Your task to perform on an android device: Search for seafood restaurants on Google Maps Image 0: 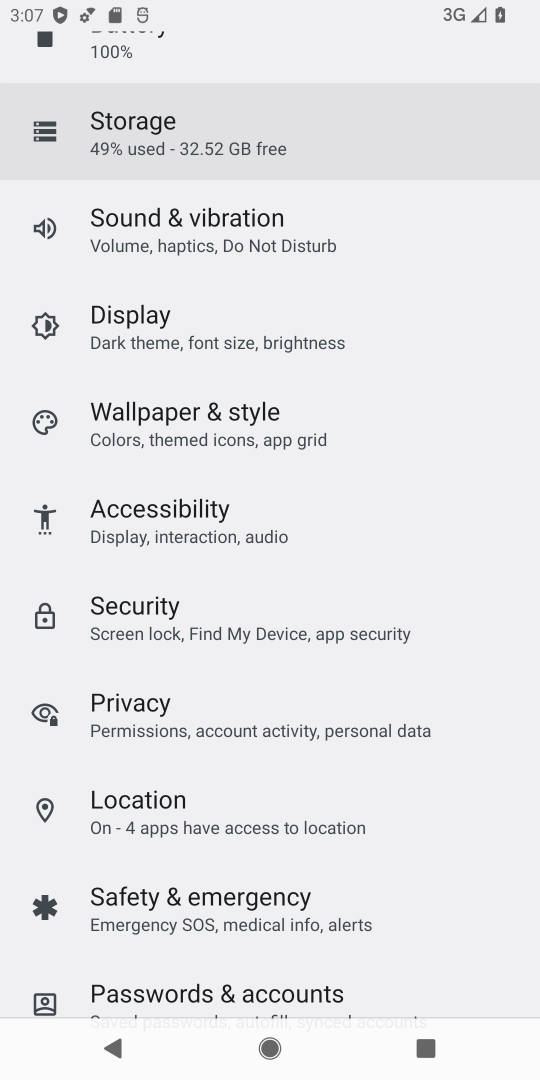
Step 0: press home button
Your task to perform on an android device: Search for seafood restaurants on Google Maps Image 1: 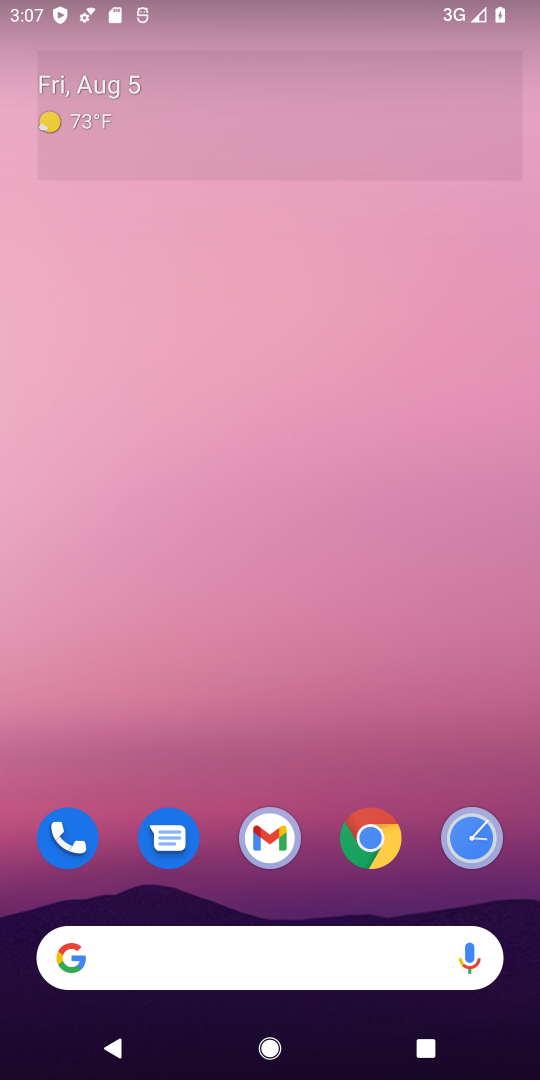
Step 1: drag from (237, 924) to (231, 82)
Your task to perform on an android device: Search for seafood restaurants on Google Maps Image 2: 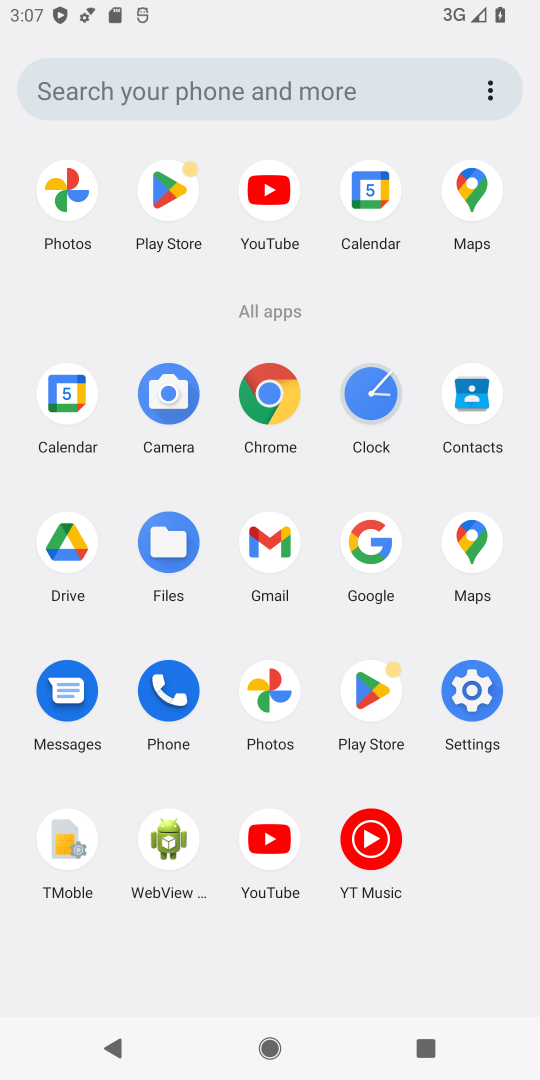
Step 2: click (459, 542)
Your task to perform on an android device: Search for seafood restaurants on Google Maps Image 3: 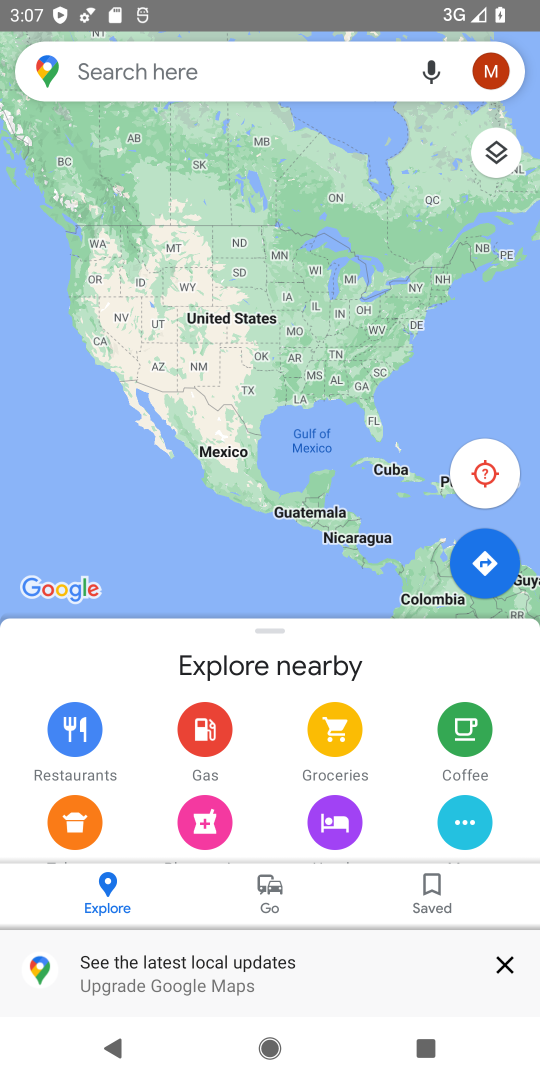
Step 3: click (200, 70)
Your task to perform on an android device: Search for seafood restaurants on Google Maps Image 4: 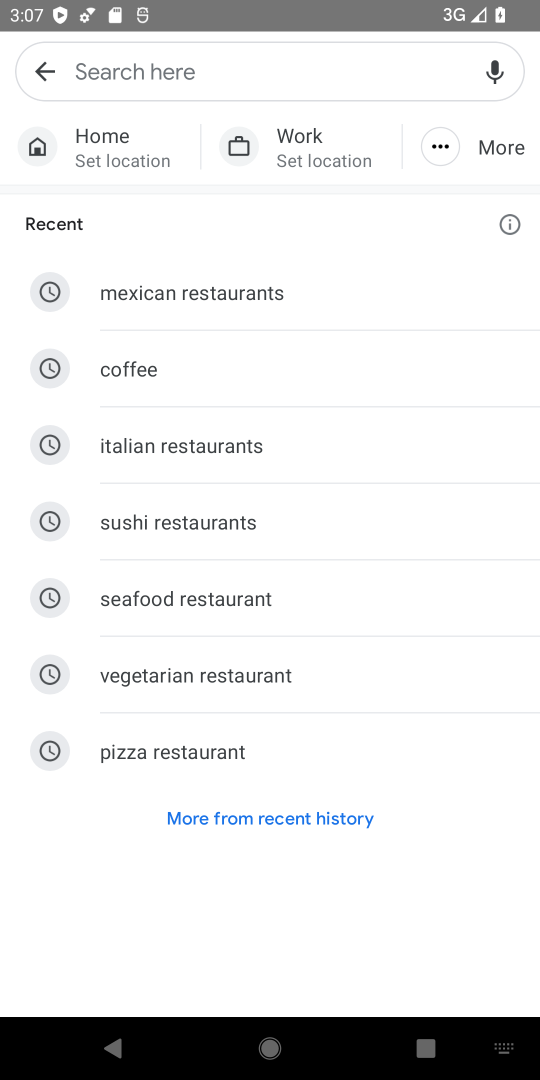
Step 4: click (220, 600)
Your task to perform on an android device: Search for seafood restaurants on Google Maps Image 5: 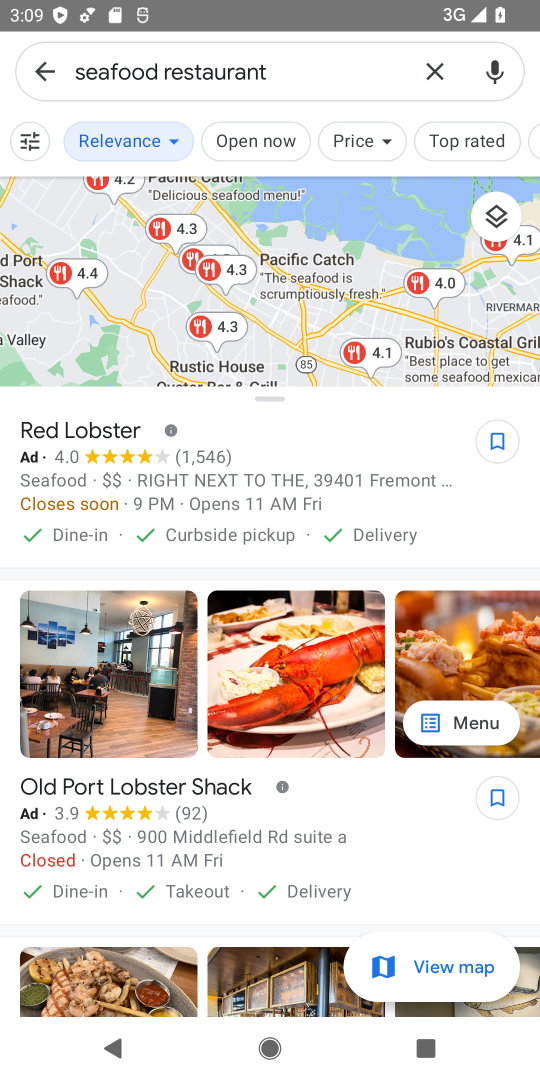
Step 5: task complete